Your task to perform on an android device: Go to battery settings Image 0: 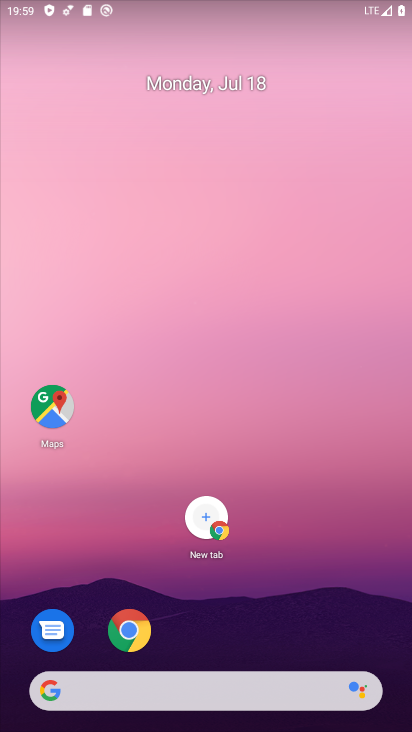
Step 0: drag from (193, 691) to (269, 69)
Your task to perform on an android device: Go to battery settings Image 1: 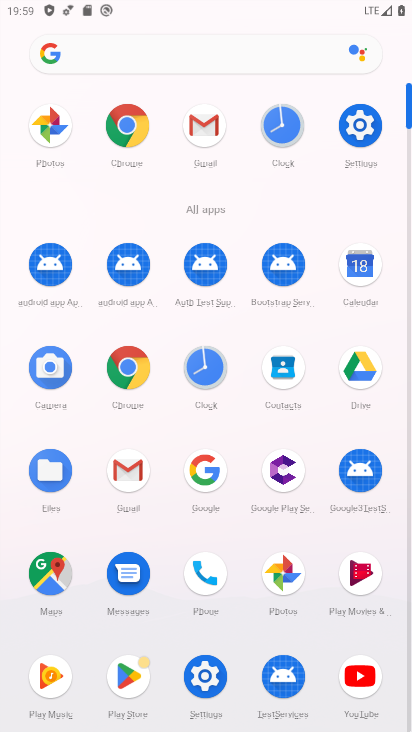
Step 1: click (348, 101)
Your task to perform on an android device: Go to battery settings Image 2: 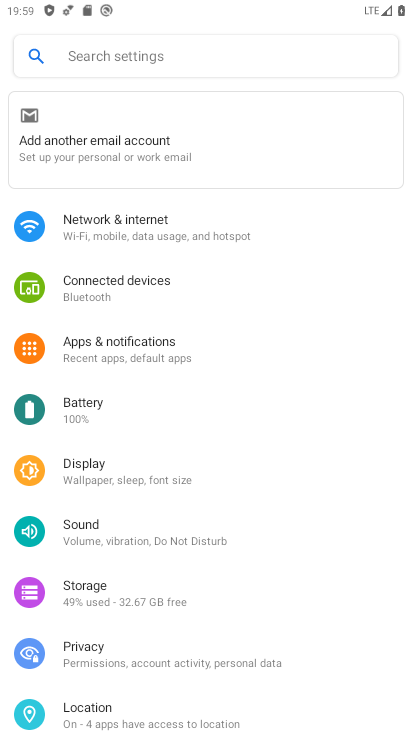
Step 2: click (80, 399)
Your task to perform on an android device: Go to battery settings Image 3: 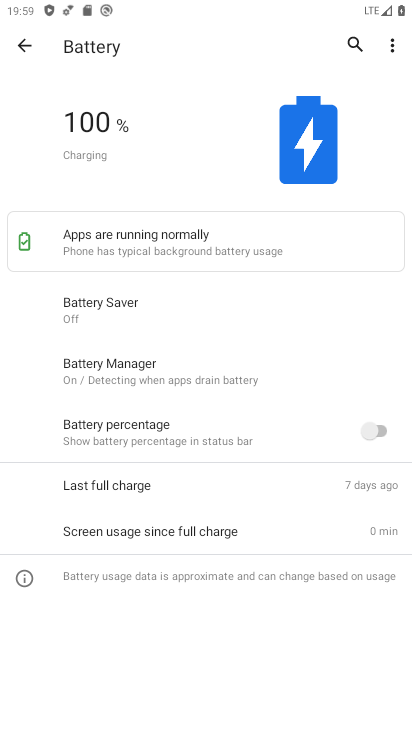
Step 3: task complete